Your task to perform on an android device: Open Google Maps and go to "Timeline" Image 0: 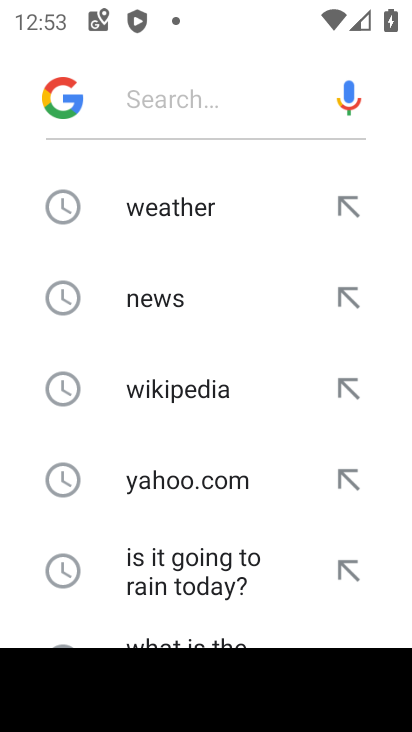
Step 0: press home button
Your task to perform on an android device: Open Google Maps and go to "Timeline" Image 1: 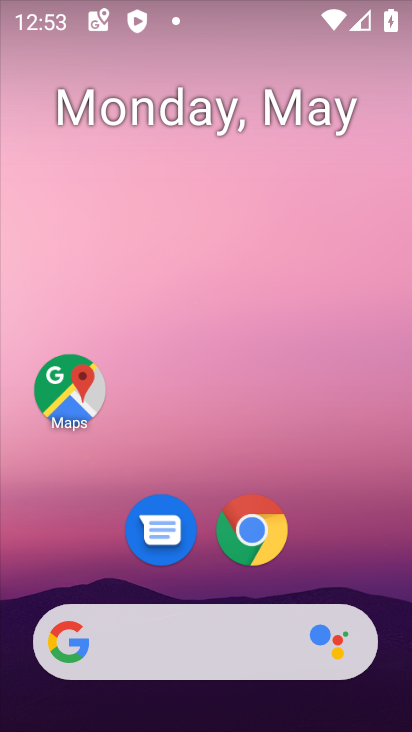
Step 1: click (120, 397)
Your task to perform on an android device: Open Google Maps and go to "Timeline" Image 2: 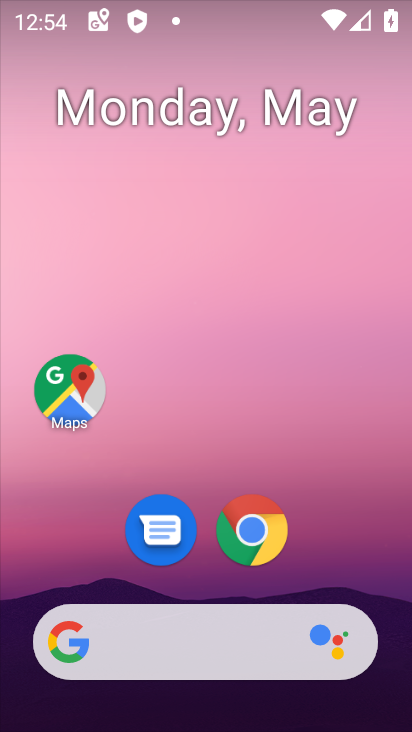
Step 2: click (75, 395)
Your task to perform on an android device: Open Google Maps and go to "Timeline" Image 3: 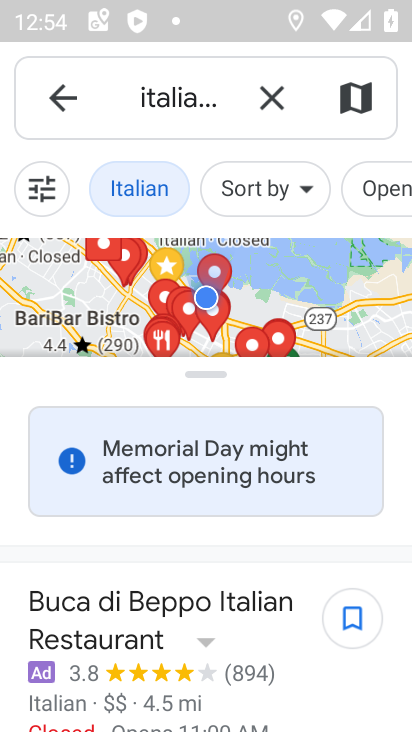
Step 3: click (53, 100)
Your task to perform on an android device: Open Google Maps and go to "Timeline" Image 4: 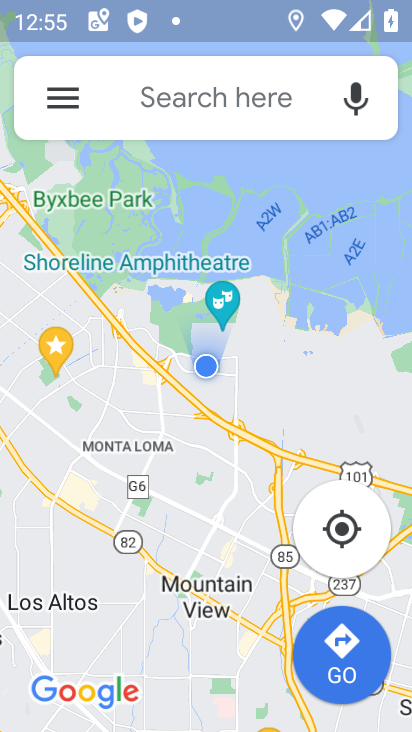
Step 4: press home button
Your task to perform on an android device: Open Google Maps and go to "Timeline" Image 5: 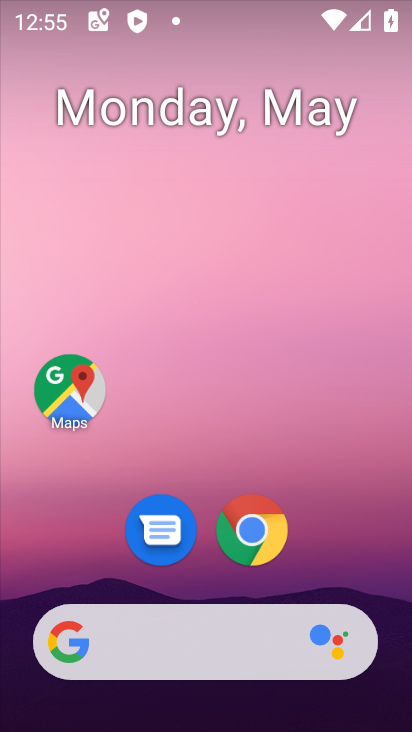
Step 5: click (64, 410)
Your task to perform on an android device: Open Google Maps and go to "Timeline" Image 6: 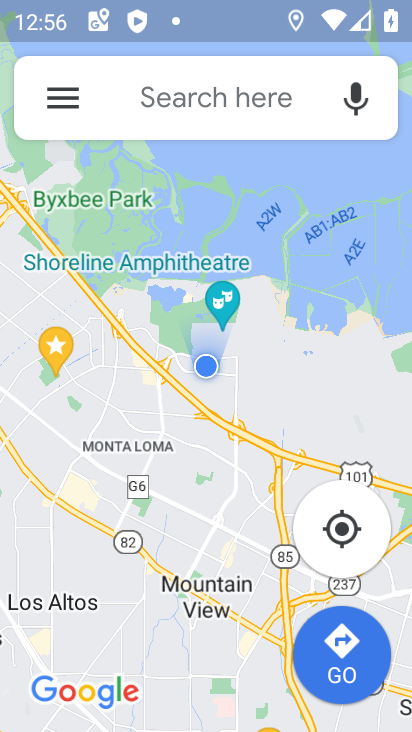
Step 6: click (71, 121)
Your task to perform on an android device: Open Google Maps and go to "Timeline" Image 7: 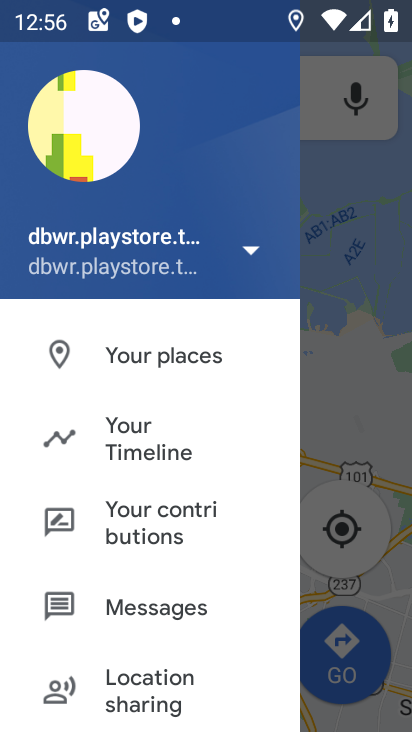
Step 7: click (118, 447)
Your task to perform on an android device: Open Google Maps and go to "Timeline" Image 8: 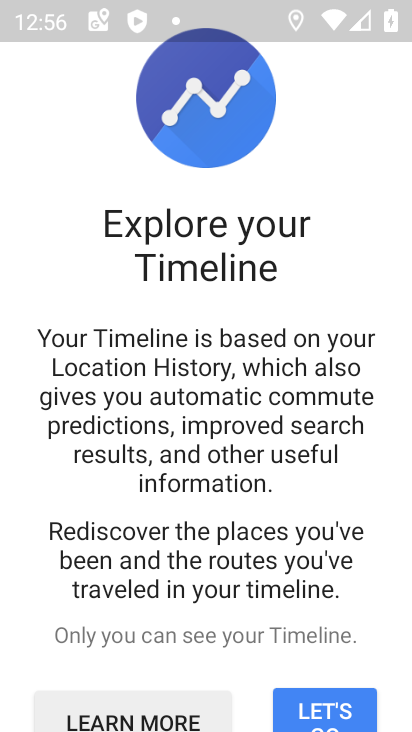
Step 8: click (322, 715)
Your task to perform on an android device: Open Google Maps and go to "Timeline" Image 9: 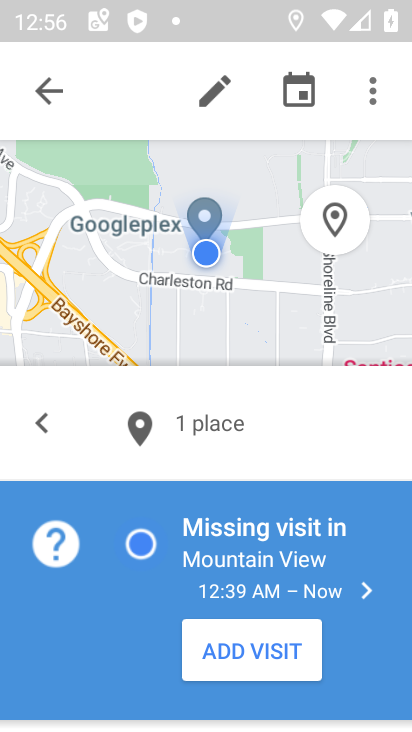
Step 9: task complete